Your task to perform on an android device: Open calendar and show me the first week of next month Image 0: 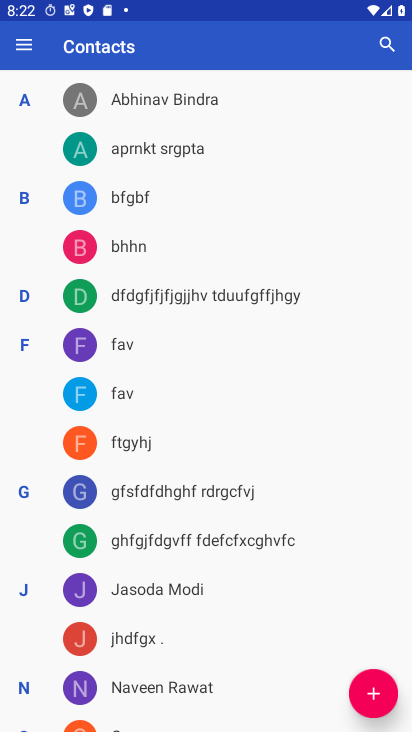
Step 0: press home button
Your task to perform on an android device: Open calendar and show me the first week of next month Image 1: 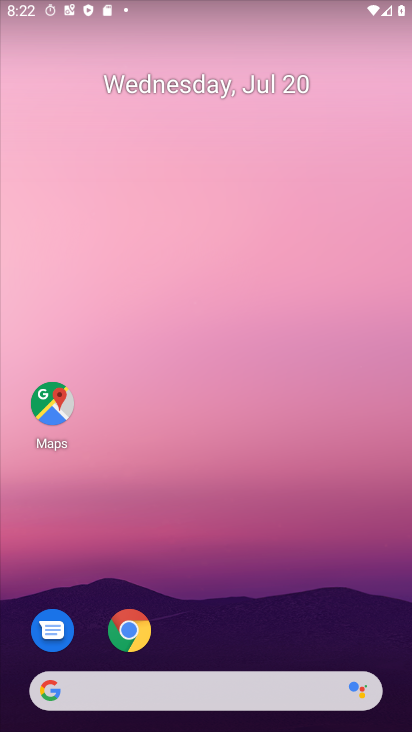
Step 1: drag from (195, 677) to (229, 148)
Your task to perform on an android device: Open calendar and show me the first week of next month Image 2: 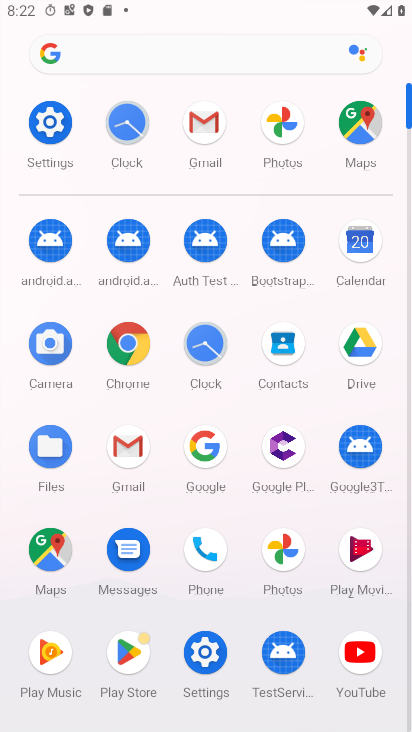
Step 2: click (363, 248)
Your task to perform on an android device: Open calendar and show me the first week of next month Image 3: 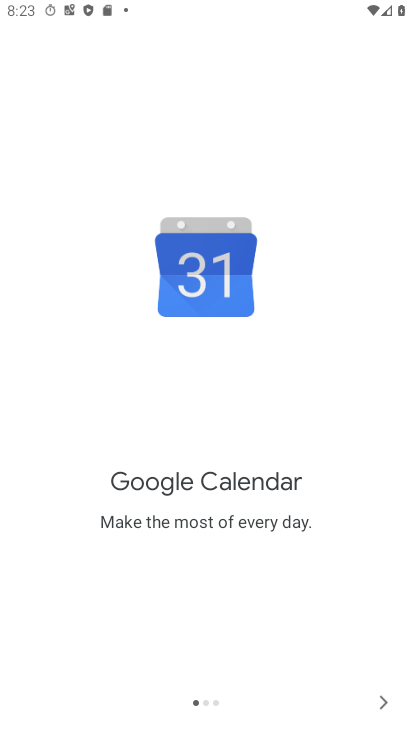
Step 3: click (386, 711)
Your task to perform on an android device: Open calendar and show me the first week of next month Image 4: 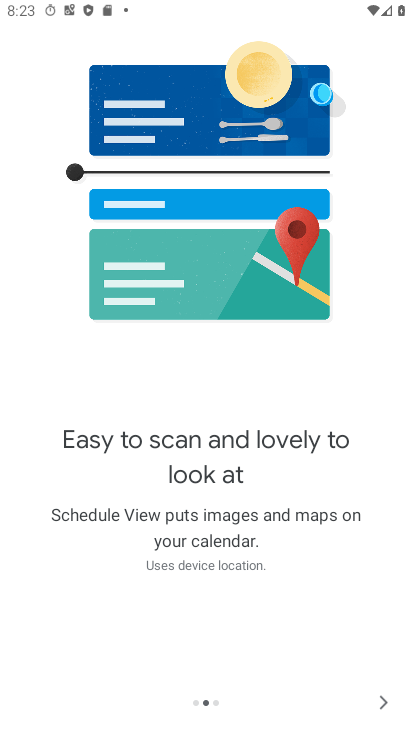
Step 4: click (388, 701)
Your task to perform on an android device: Open calendar and show me the first week of next month Image 5: 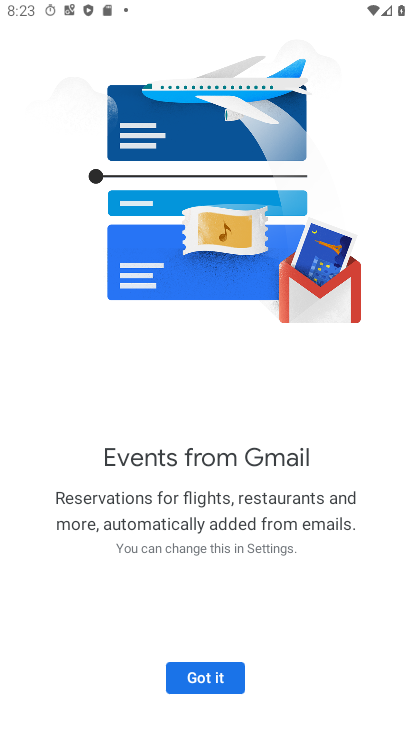
Step 5: click (224, 683)
Your task to perform on an android device: Open calendar and show me the first week of next month Image 6: 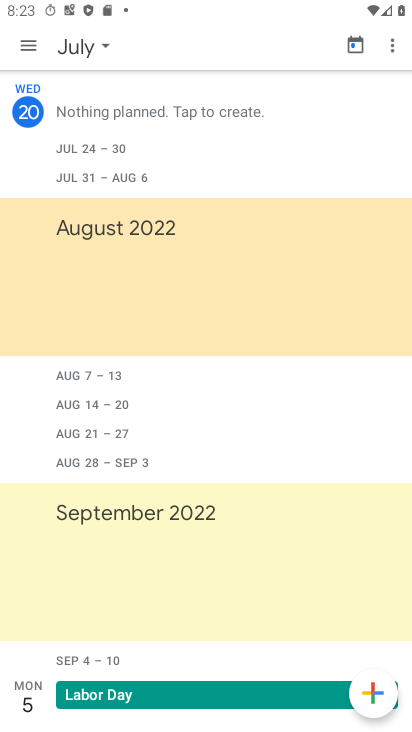
Step 6: click (96, 49)
Your task to perform on an android device: Open calendar and show me the first week of next month Image 7: 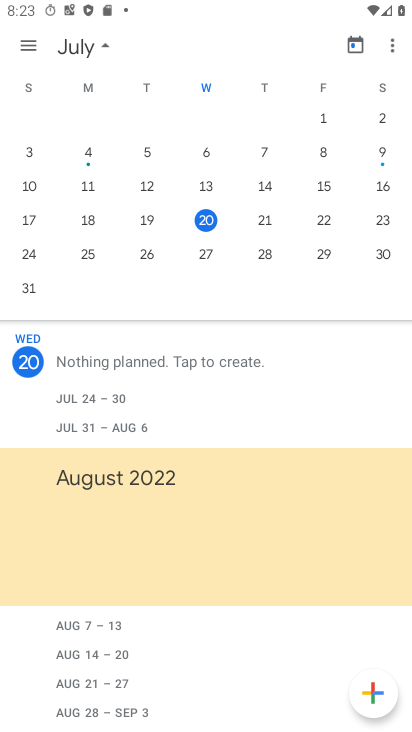
Step 7: drag from (300, 221) to (7, 143)
Your task to perform on an android device: Open calendar and show me the first week of next month Image 8: 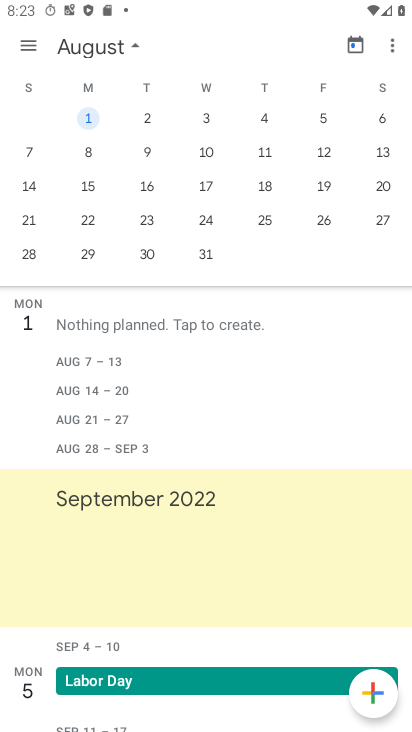
Step 8: click (92, 116)
Your task to perform on an android device: Open calendar and show me the first week of next month Image 9: 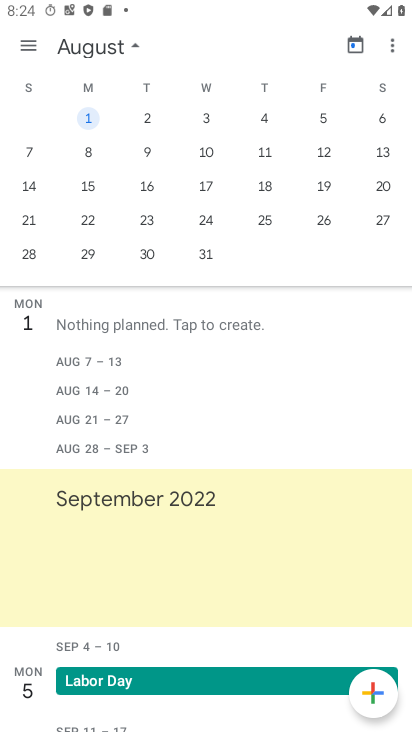
Step 9: task complete